Your task to perform on an android device: open chrome privacy settings Image 0: 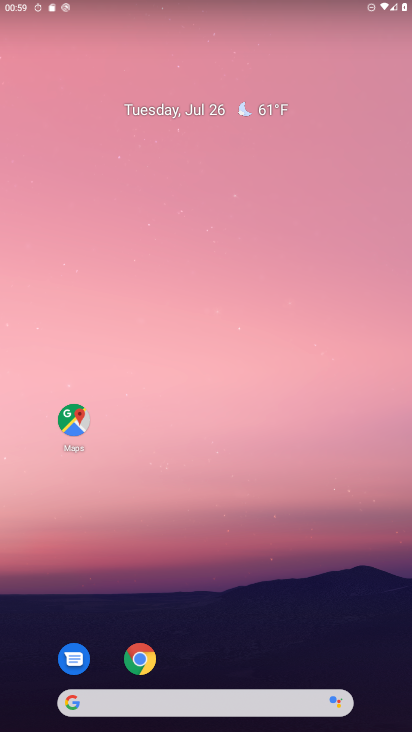
Step 0: click (131, 647)
Your task to perform on an android device: open chrome privacy settings Image 1: 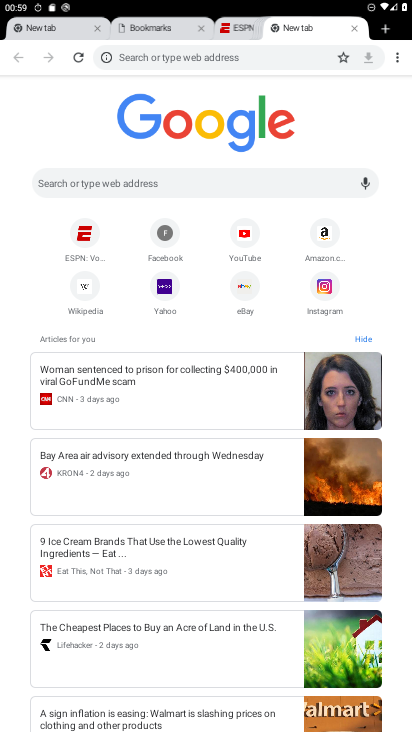
Step 1: click (401, 59)
Your task to perform on an android device: open chrome privacy settings Image 2: 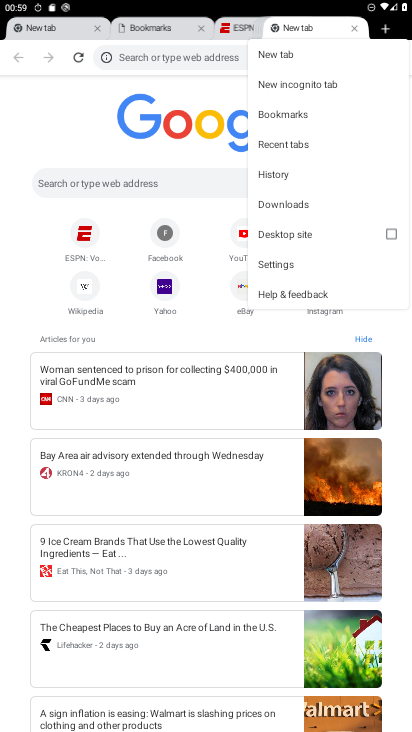
Step 2: click (269, 263)
Your task to perform on an android device: open chrome privacy settings Image 3: 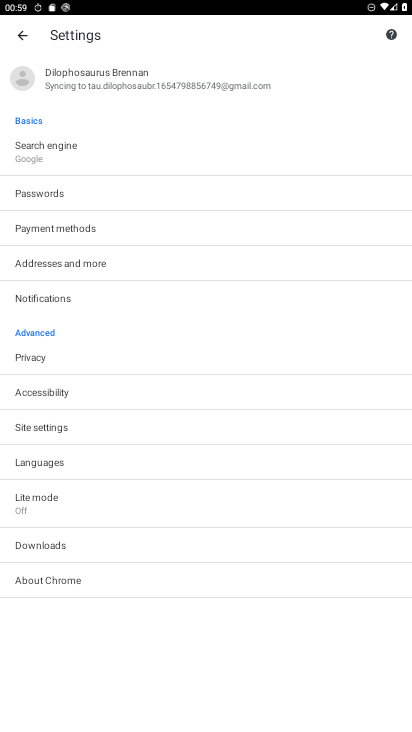
Step 3: click (35, 356)
Your task to perform on an android device: open chrome privacy settings Image 4: 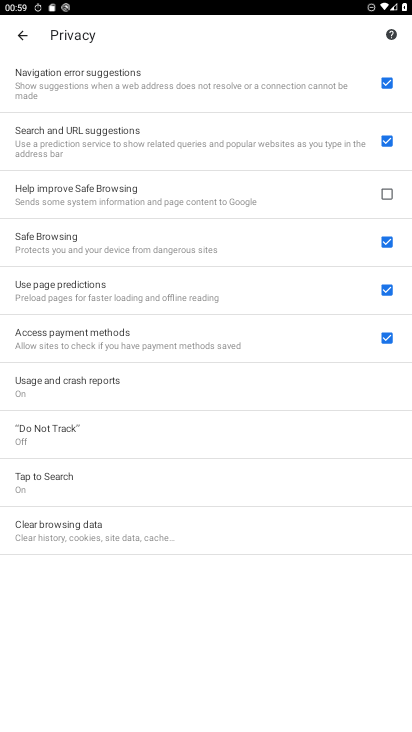
Step 4: task complete